Your task to perform on an android device: snooze an email in the gmail app Image 0: 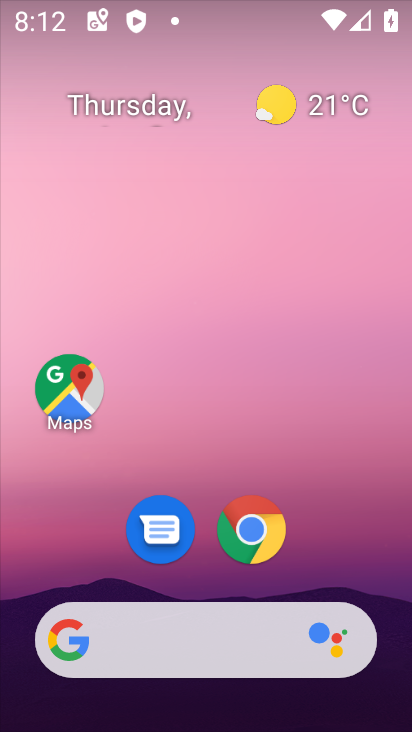
Step 0: drag from (255, 718) to (289, 7)
Your task to perform on an android device: snooze an email in the gmail app Image 1: 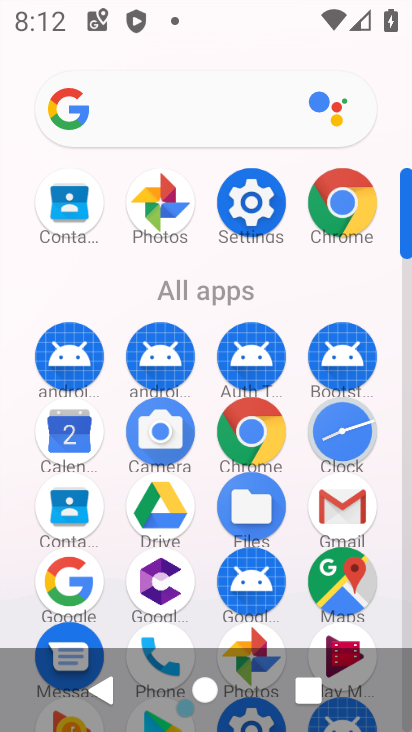
Step 1: click (355, 497)
Your task to perform on an android device: snooze an email in the gmail app Image 2: 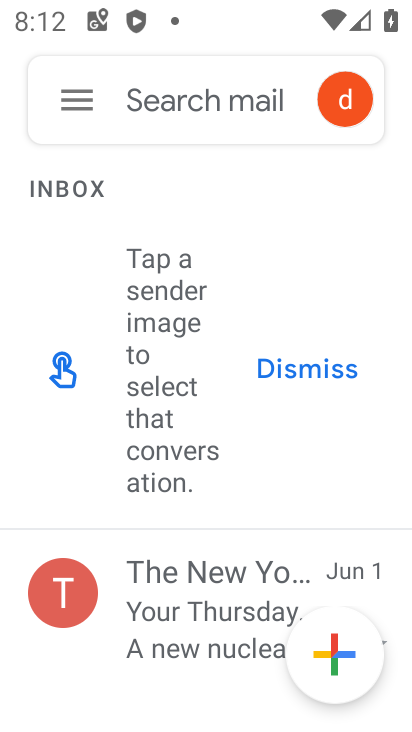
Step 2: click (207, 576)
Your task to perform on an android device: snooze an email in the gmail app Image 3: 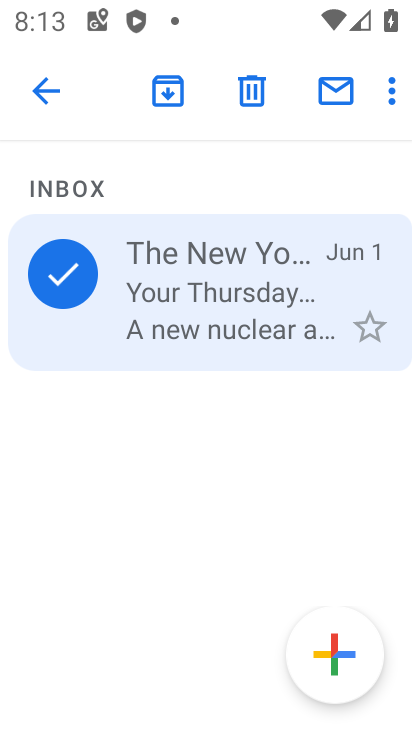
Step 3: click (390, 87)
Your task to perform on an android device: snooze an email in the gmail app Image 4: 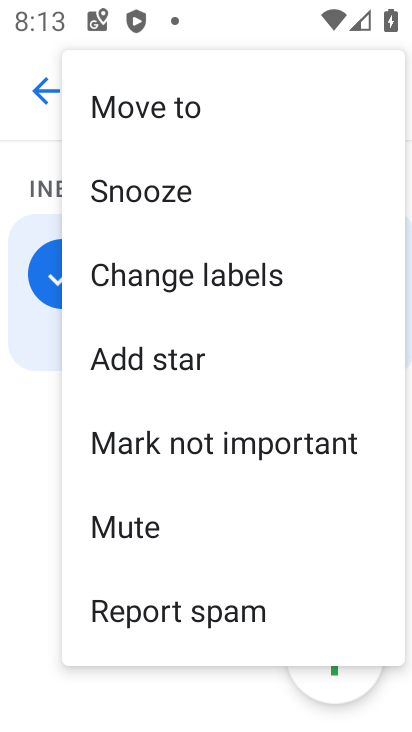
Step 4: click (158, 187)
Your task to perform on an android device: snooze an email in the gmail app Image 5: 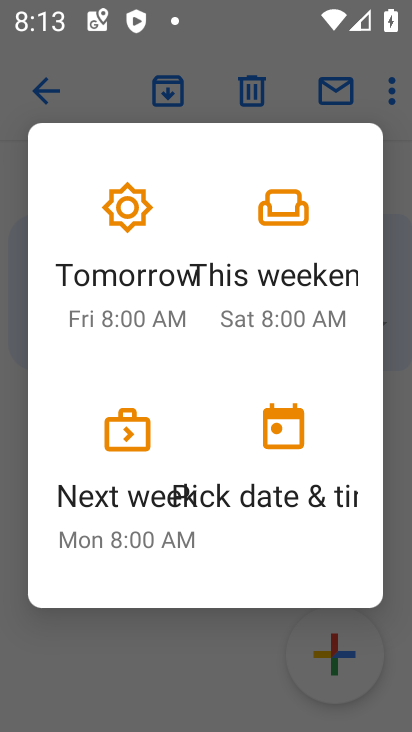
Step 5: click (290, 271)
Your task to perform on an android device: snooze an email in the gmail app Image 6: 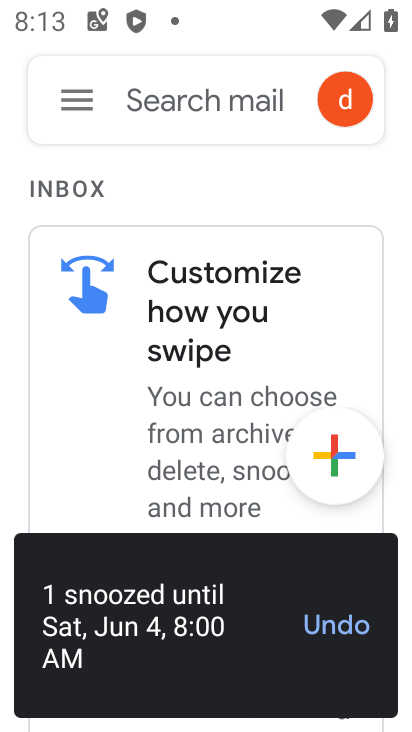
Step 6: task complete